Your task to perform on an android device: set default search engine in the chrome app Image 0: 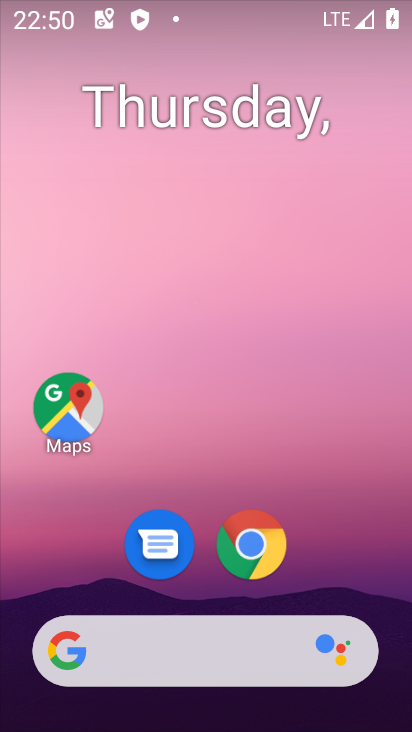
Step 0: click (297, 541)
Your task to perform on an android device: set default search engine in the chrome app Image 1: 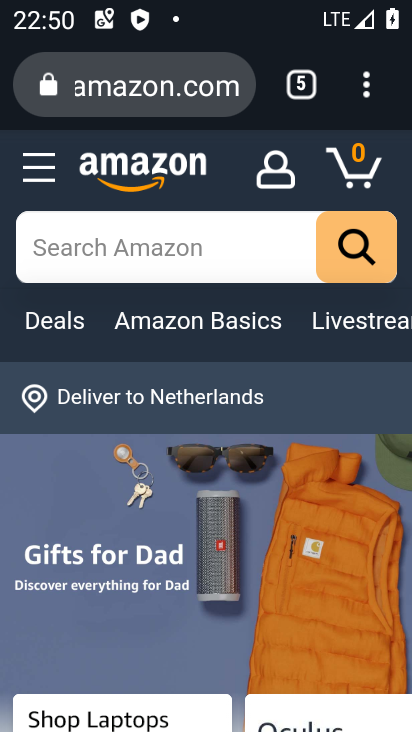
Step 1: click (362, 96)
Your task to perform on an android device: set default search engine in the chrome app Image 2: 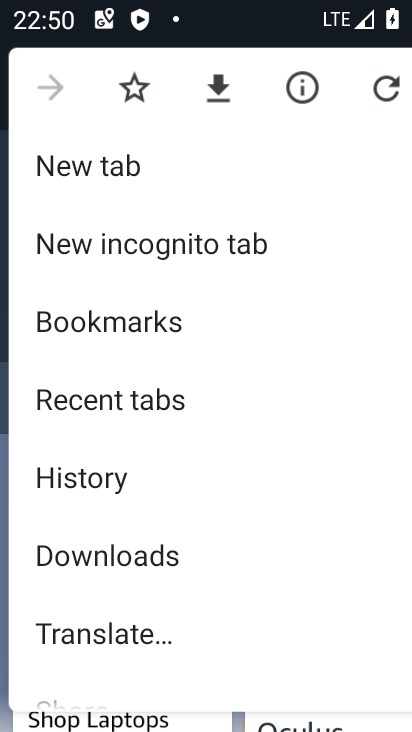
Step 2: drag from (80, 659) to (95, 304)
Your task to perform on an android device: set default search engine in the chrome app Image 3: 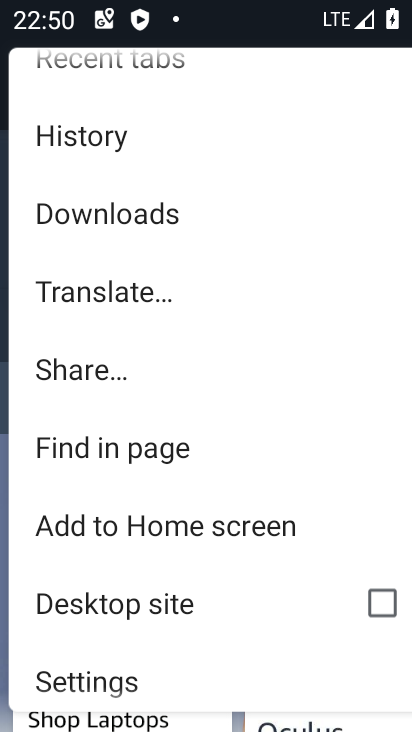
Step 3: click (105, 688)
Your task to perform on an android device: set default search engine in the chrome app Image 4: 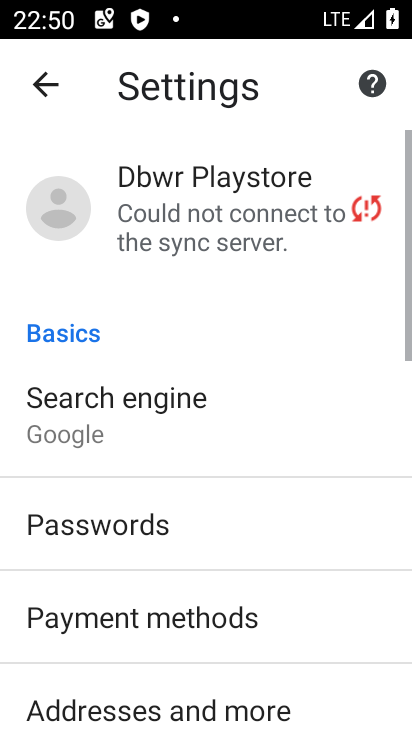
Step 4: click (95, 418)
Your task to perform on an android device: set default search engine in the chrome app Image 5: 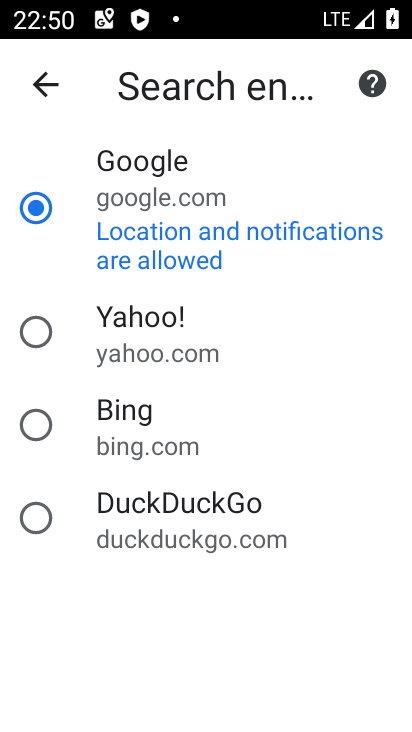
Step 5: click (102, 523)
Your task to perform on an android device: set default search engine in the chrome app Image 6: 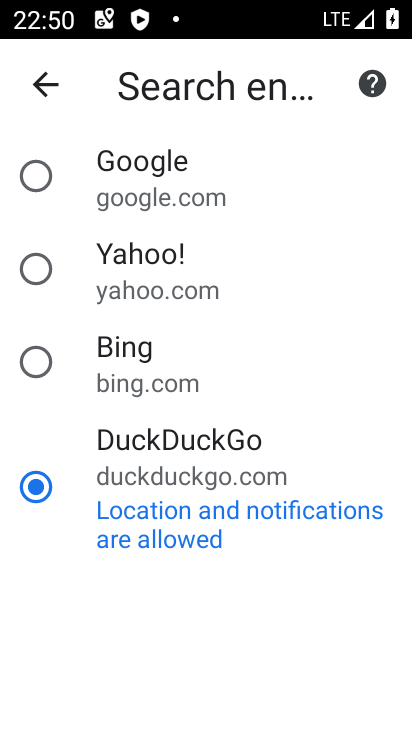
Step 6: click (119, 275)
Your task to perform on an android device: set default search engine in the chrome app Image 7: 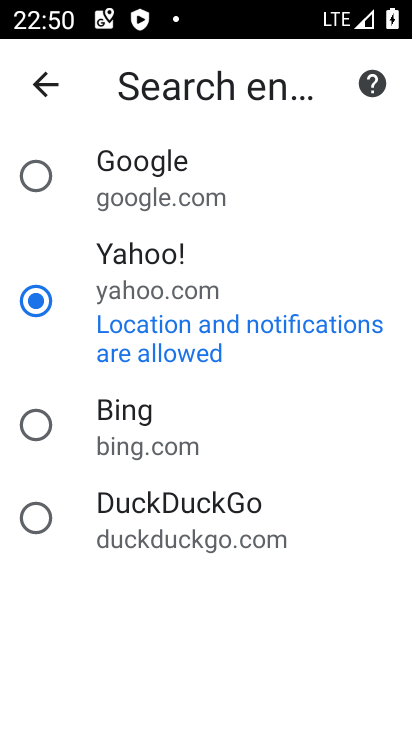
Step 7: task complete